Your task to perform on an android device: see tabs open on other devices in the chrome app Image 0: 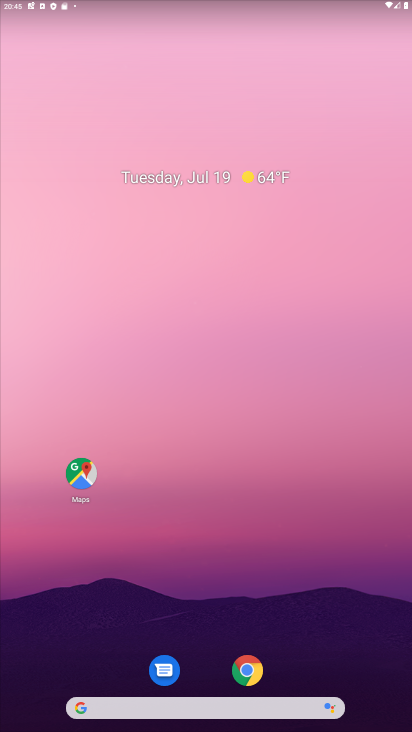
Step 0: click (257, 657)
Your task to perform on an android device: see tabs open on other devices in the chrome app Image 1: 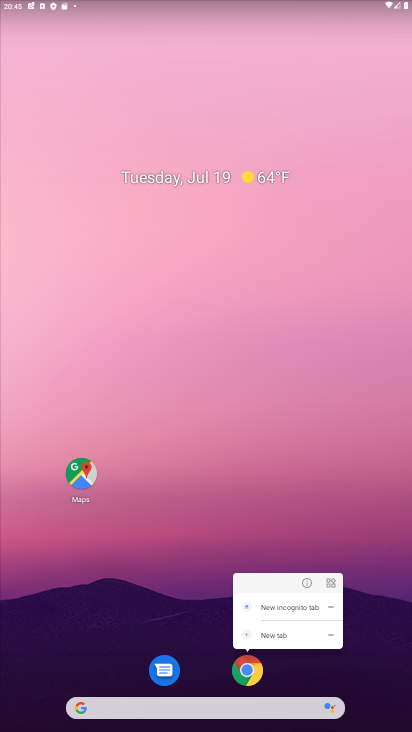
Step 1: click (257, 657)
Your task to perform on an android device: see tabs open on other devices in the chrome app Image 2: 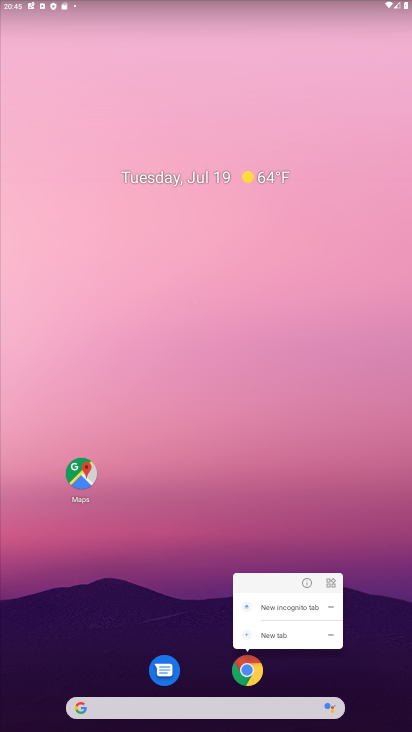
Step 2: click (257, 657)
Your task to perform on an android device: see tabs open on other devices in the chrome app Image 3: 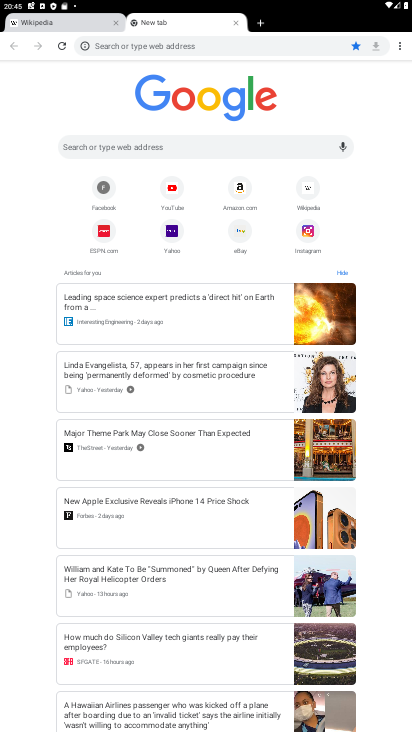
Step 3: click (397, 43)
Your task to perform on an android device: see tabs open on other devices in the chrome app Image 4: 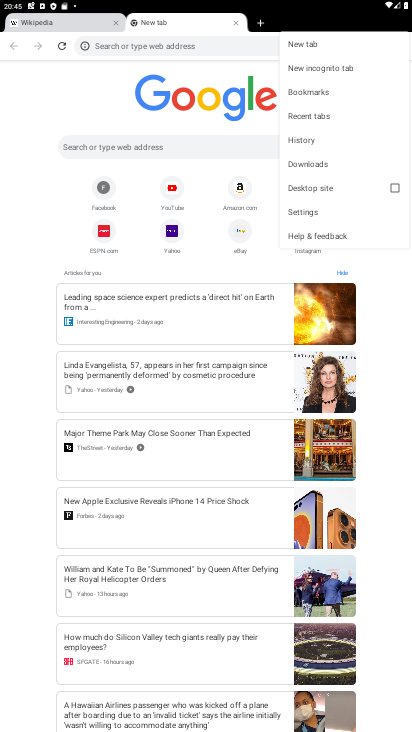
Step 4: click (334, 111)
Your task to perform on an android device: see tabs open on other devices in the chrome app Image 5: 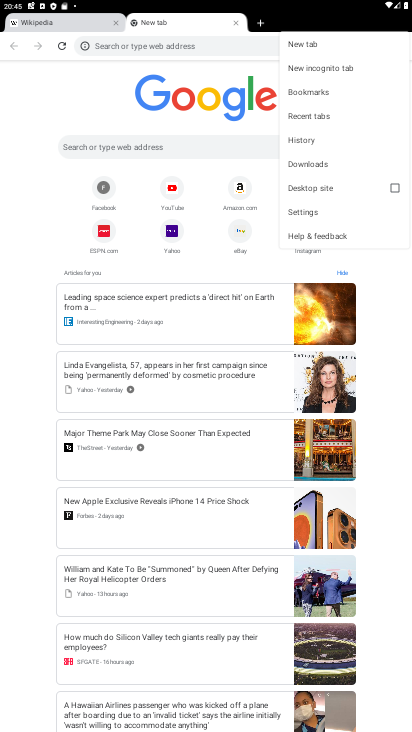
Step 5: click (334, 111)
Your task to perform on an android device: see tabs open on other devices in the chrome app Image 6: 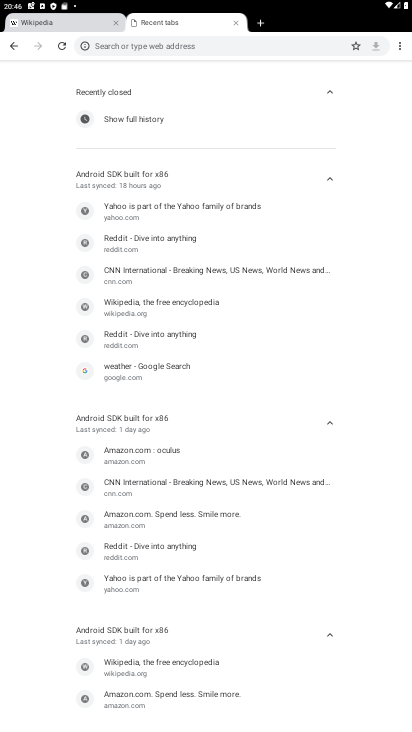
Step 6: task complete